Your task to perform on an android device: open a new tab in the chrome app Image 0: 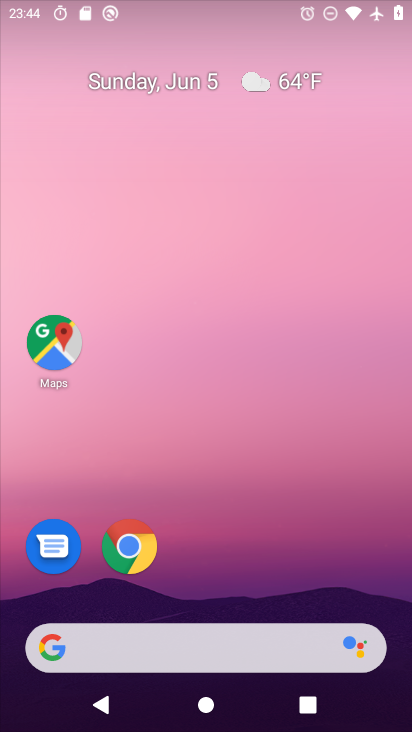
Step 0: drag from (228, 576) to (251, 92)
Your task to perform on an android device: open a new tab in the chrome app Image 1: 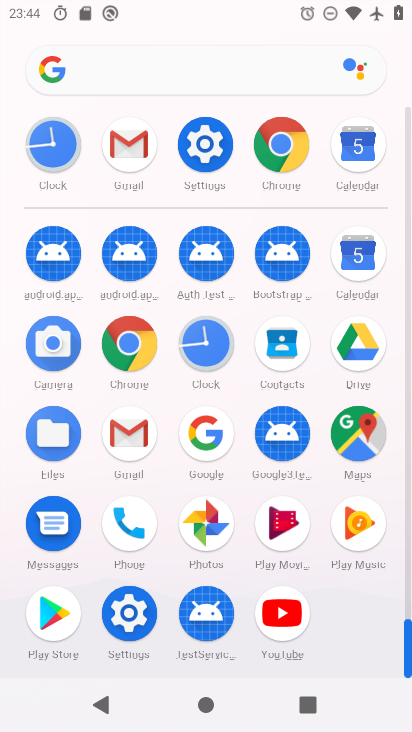
Step 1: click (126, 339)
Your task to perform on an android device: open a new tab in the chrome app Image 2: 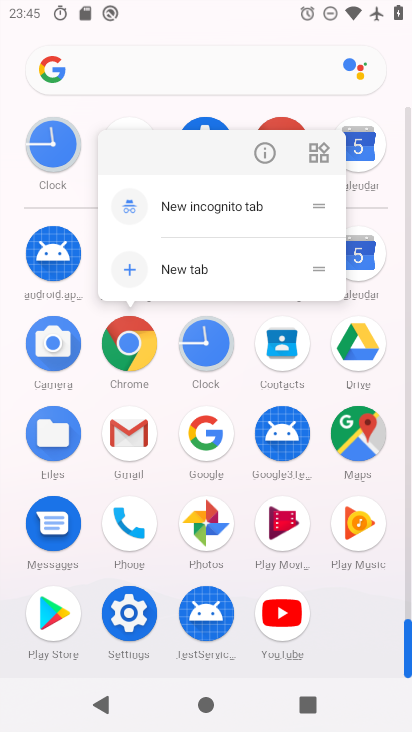
Step 2: click (266, 152)
Your task to perform on an android device: open a new tab in the chrome app Image 3: 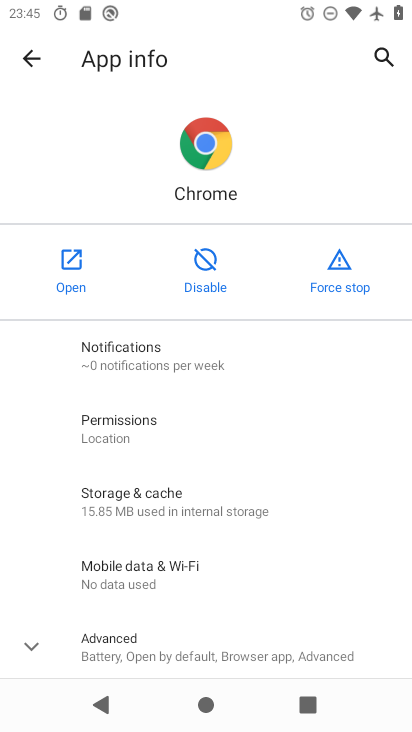
Step 3: click (67, 281)
Your task to perform on an android device: open a new tab in the chrome app Image 4: 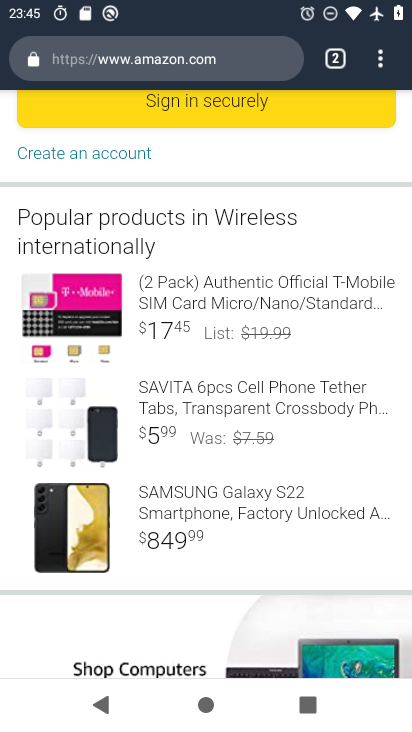
Step 4: task complete